Your task to perform on an android device: change the clock display to show seconds Image 0: 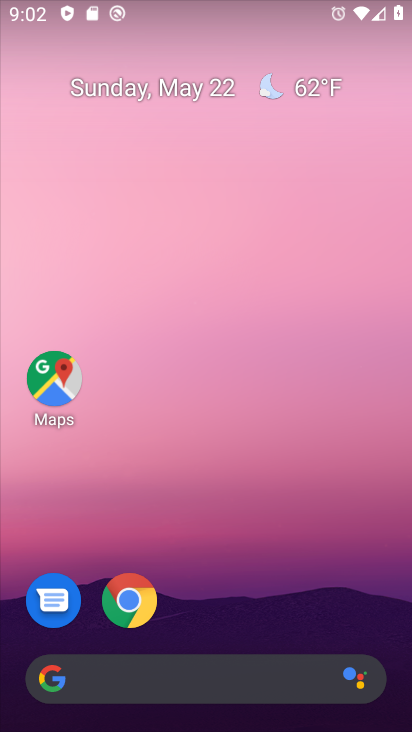
Step 0: drag from (218, 612) to (186, 86)
Your task to perform on an android device: change the clock display to show seconds Image 1: 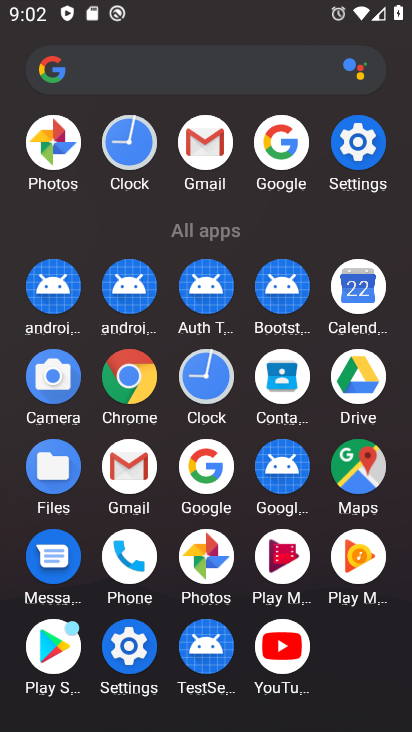
Step 1: click (131, 142)
Your task to perform on an android device: change the clock display to show seconds Image 2: 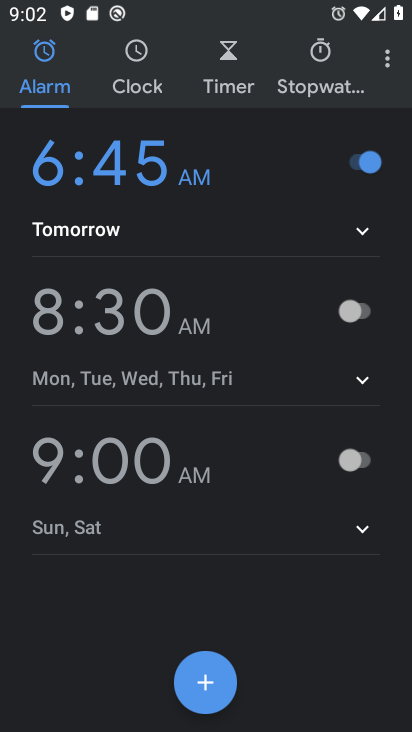
Step 2: click (387, 57)
Your task to perform on an android device: change the clock display to show seconds Image 3: 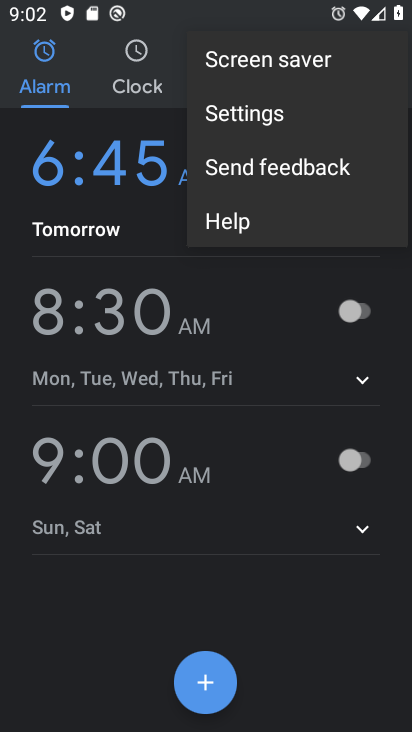
Step 3: click (272, 118)
Your task to perform on an android device: change the clock display to show seconds Image 4: 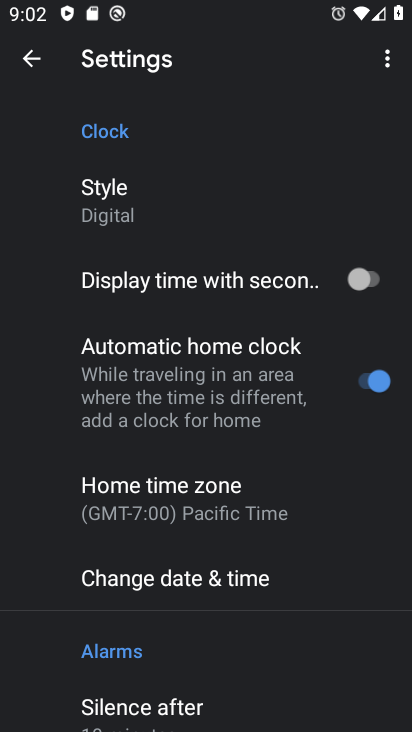
Step 4: click (353, 283)
Your task to perform on an android device: change the clock display to show seconds Image 5: 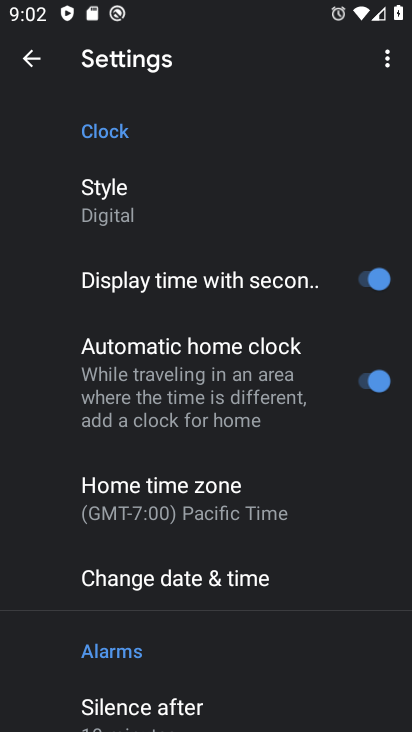
Step 5: task complete